Your task to perform on an android device: What's the weather today? Image 0: 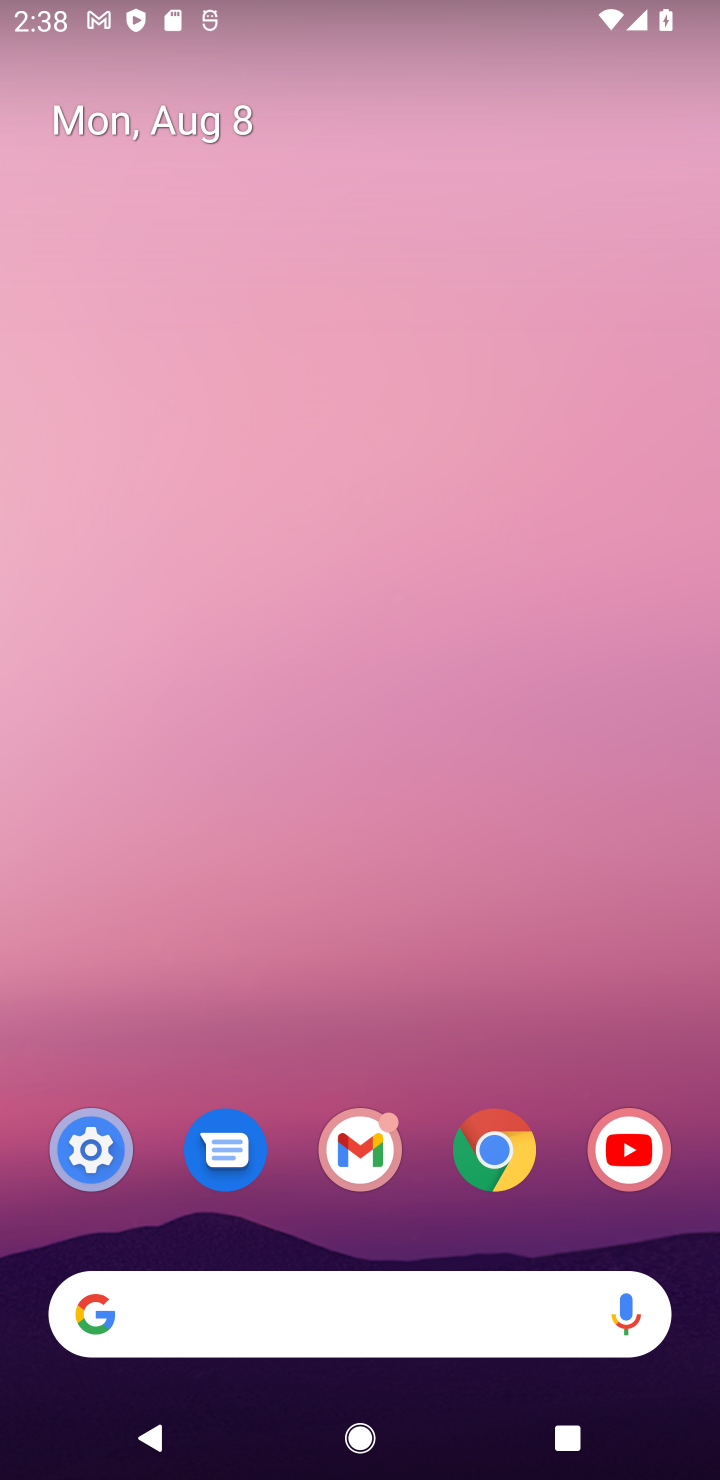
Step 0: click (426, 1274)
Your task to perform on an android device: What's the weather today? Image 1: 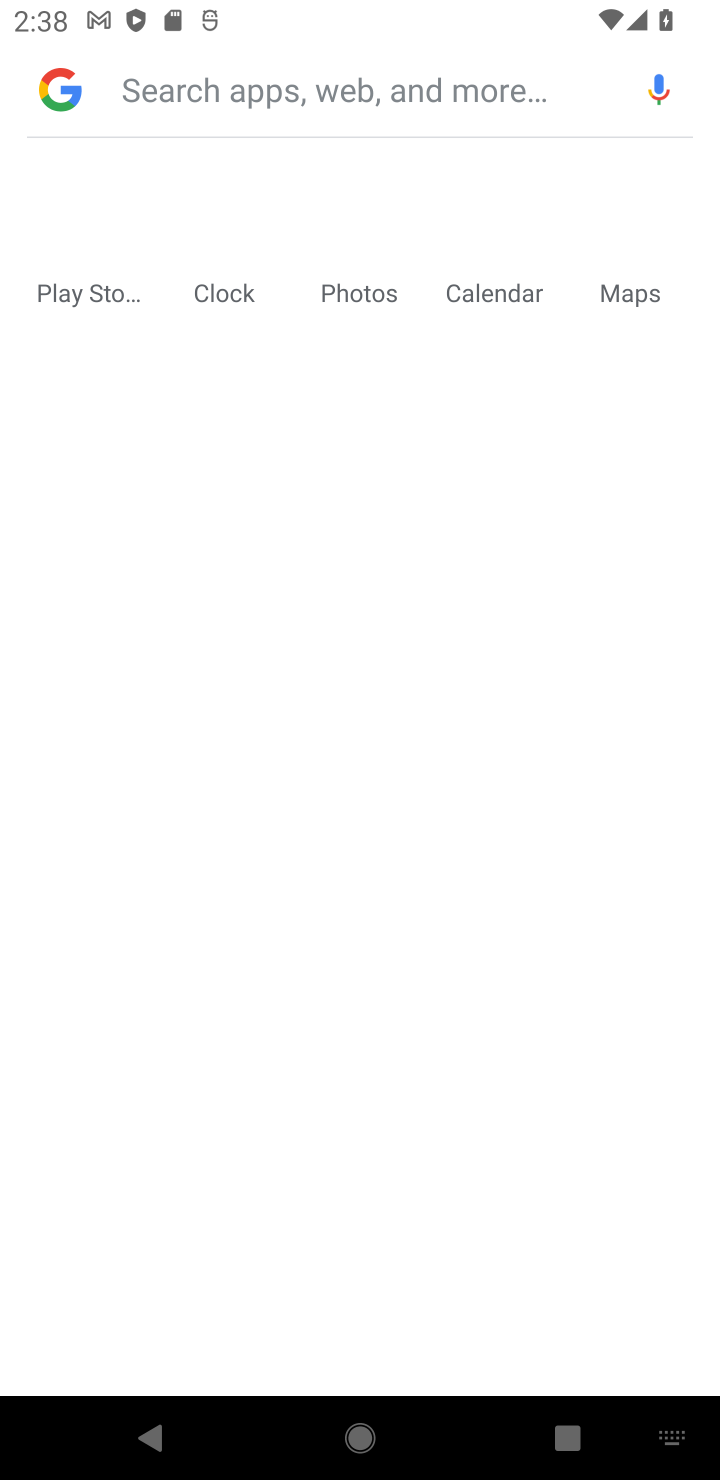
Step 1: type "weather"
Your task to perform on an android device: What's the weather today? Image 2: 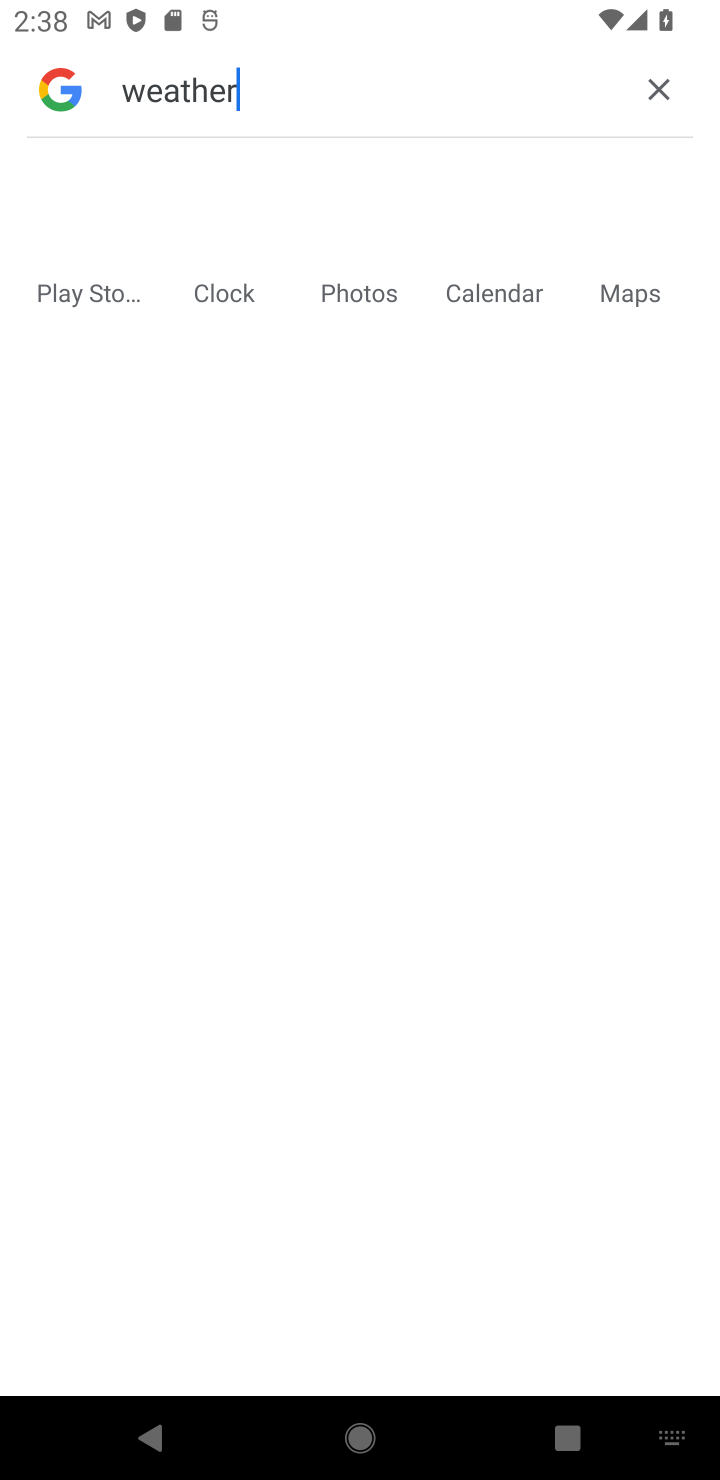
Step 2: task complete